Your task to perform on an android device: check storage Image 0: 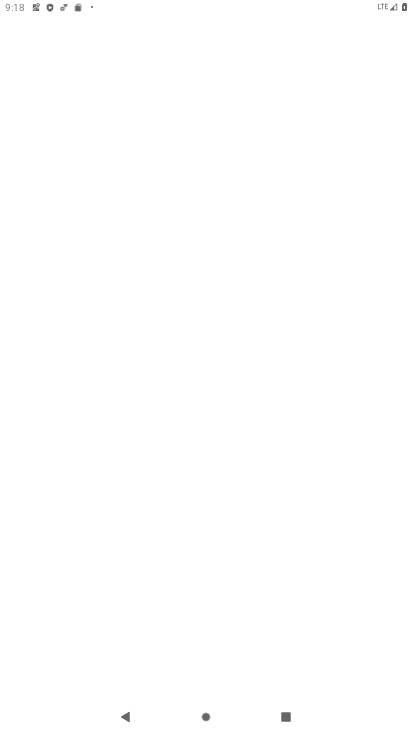
Step 0: press home button
Your task to perform on an android device: check storage Image 1: 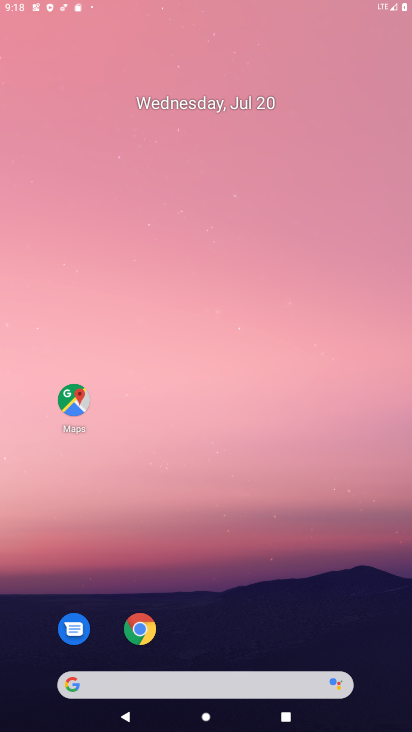
Step 1: drag from (249, 610) to (228, 0)
Your task to perform on an android device: check storage Image 2: 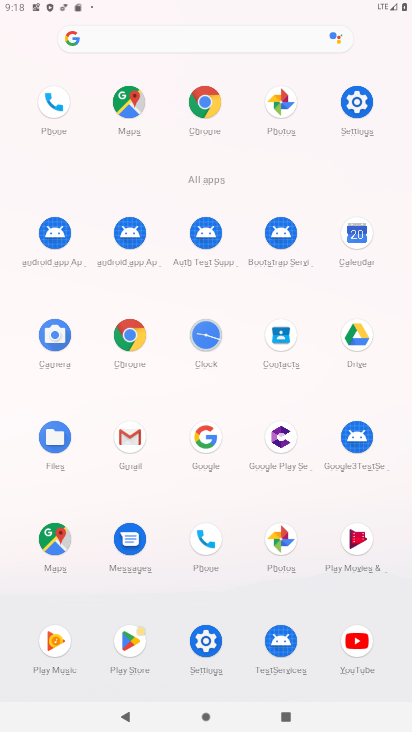
Step 2: click (359, 97)
Your task to perform on an android device: check storage Image 3: 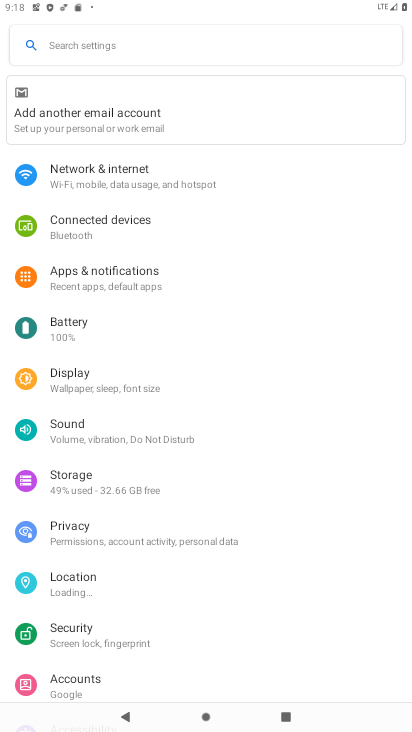
Step 3: click (82, 491)
Your task to perform on an android device: check storage Image 4: 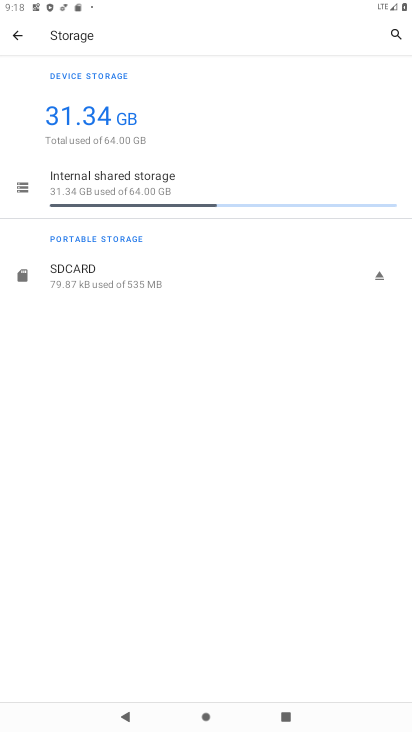
Step 4: task complete